Your task to perform on an android device: Open calendar and show me the second week of next month Image 0: 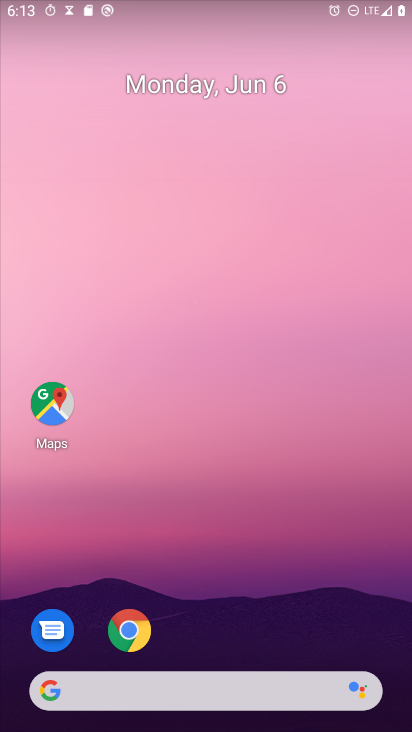
Step 0: press home button
Your task to perform on an android device: Open calendar and show me the second week of next month Image 1: 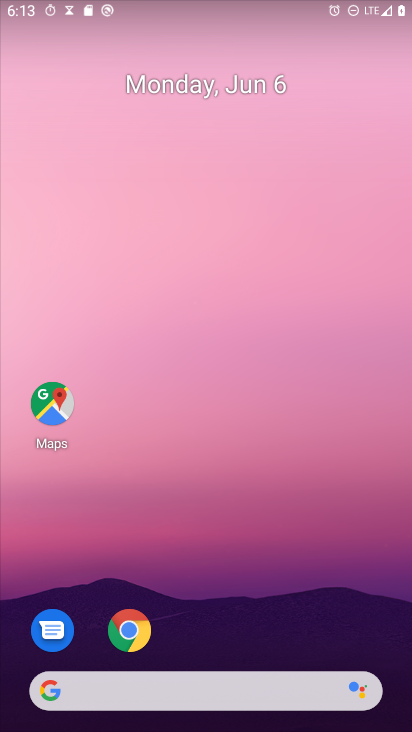
Step 1: click (179, 83)
Your task to perform on an android device: Open calendar and show me the second week of next month Image 2: 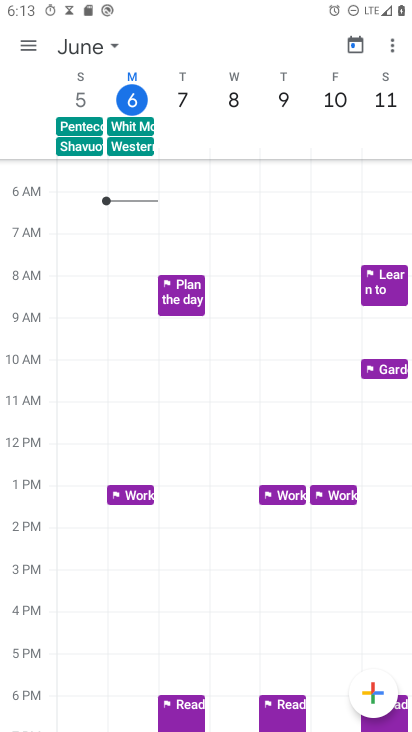
Step 2: click (110, 47)
Your task to perform on an android device: Open calendar and show me the second week of next month Image 3: 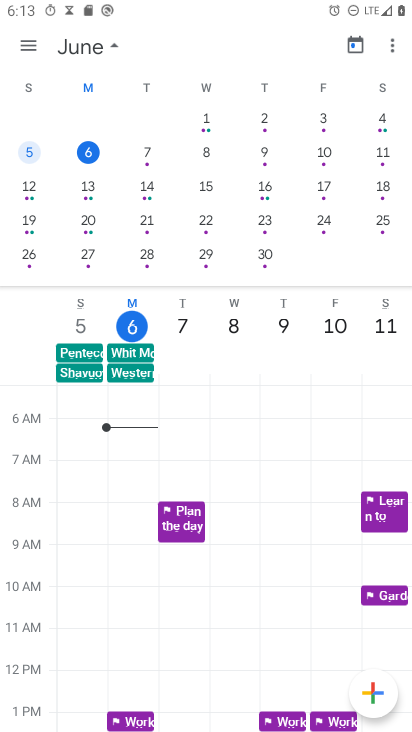
Step 3: drag from (357, 216) to (7, 243)
Your task to perform on an android device: Open calendar and show me the second week of next month Image 4: 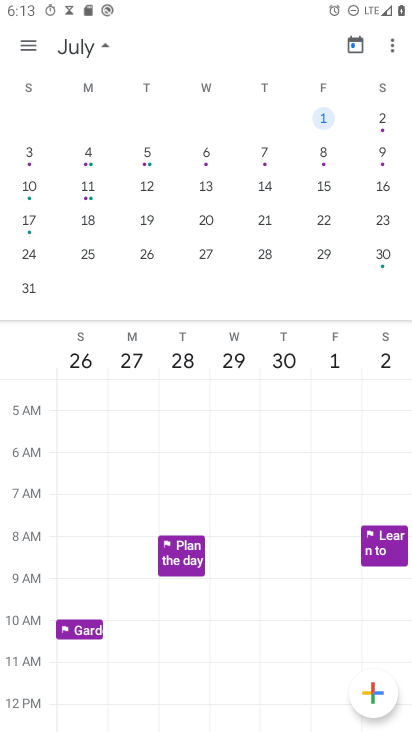
Step 4: click (32, 184)
Your task to perform on an android device: Open calendar and show me the second week of next month Image 5: 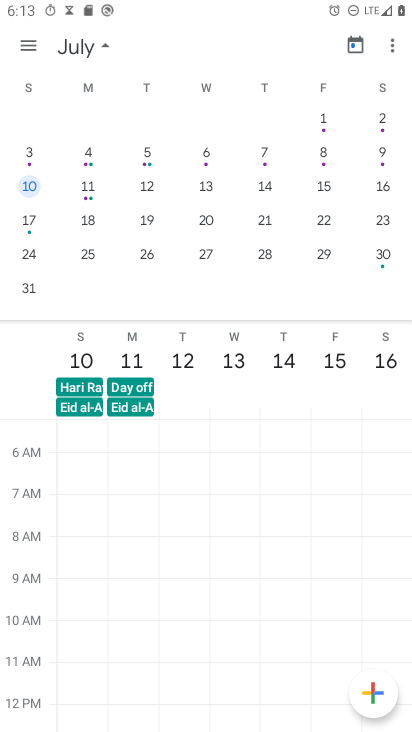
Step 5: click (30, 152)
Your task to perform on an android device: Open calendar and show me the second week of next month Image 6: 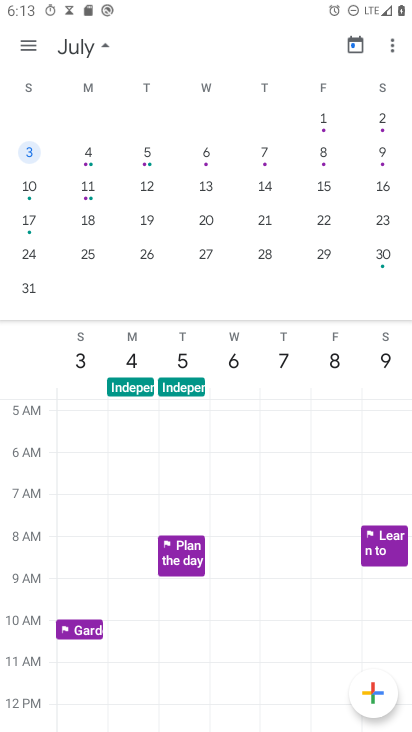
Step 6: task complete